Your task to perform on an android device: open app "Adobe Acrobat Reader" (install if not already installed) and go to login screen Image 0: 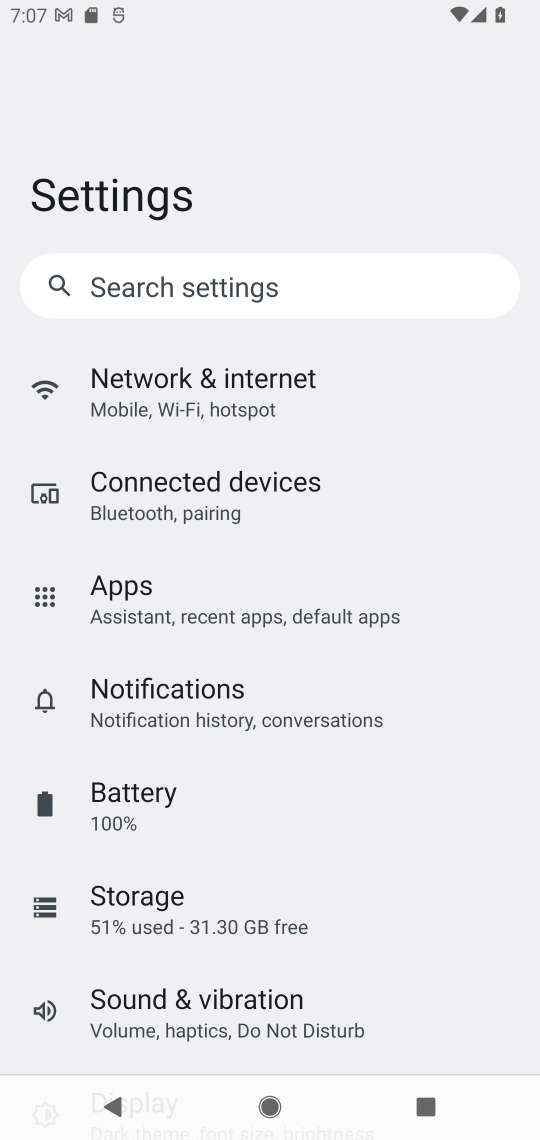
Step 0: press home button
Your task to perform on an android device: open app "Adobe Acrobat Reader" (install if not already installed) and go to login screen Image 1: 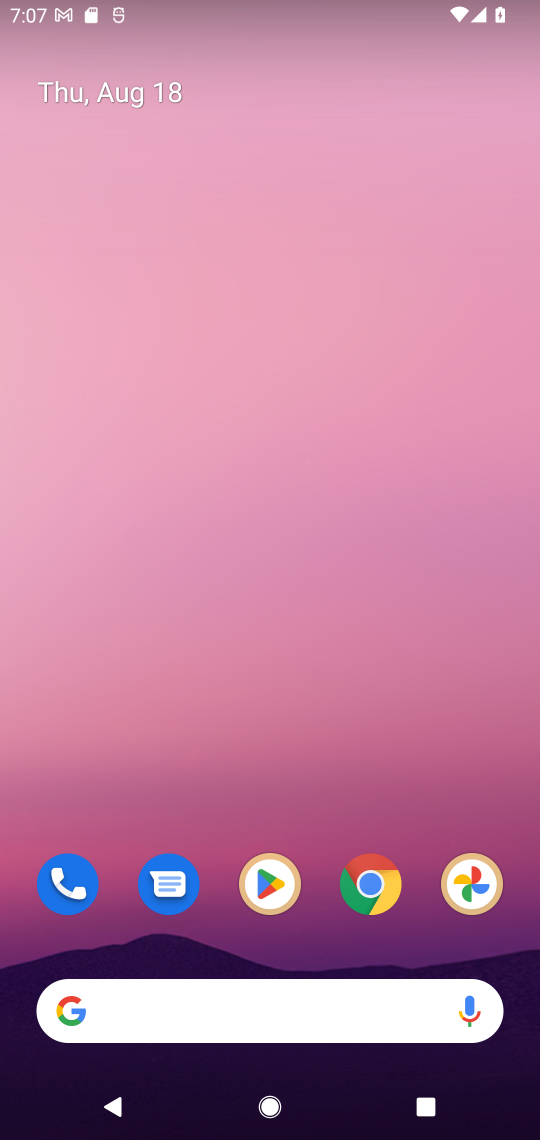
Step 1: drag from (328, 1006) to (366, 230)
Your task to perform on an android device: open app "Adobe Acrobat Reader" (install if not already installed) and go to login screen Image 2: 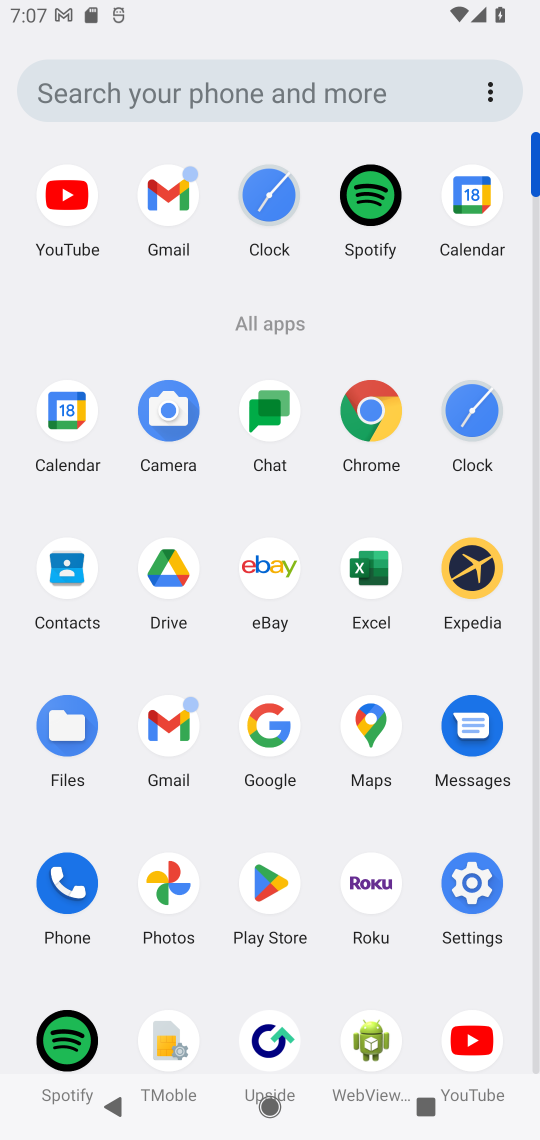
Step 2: click (275, 884)
Your task to perform on an android device: open app "Adobe Acrobat Reader" (install if not already installed) and go to login screen Image 3: 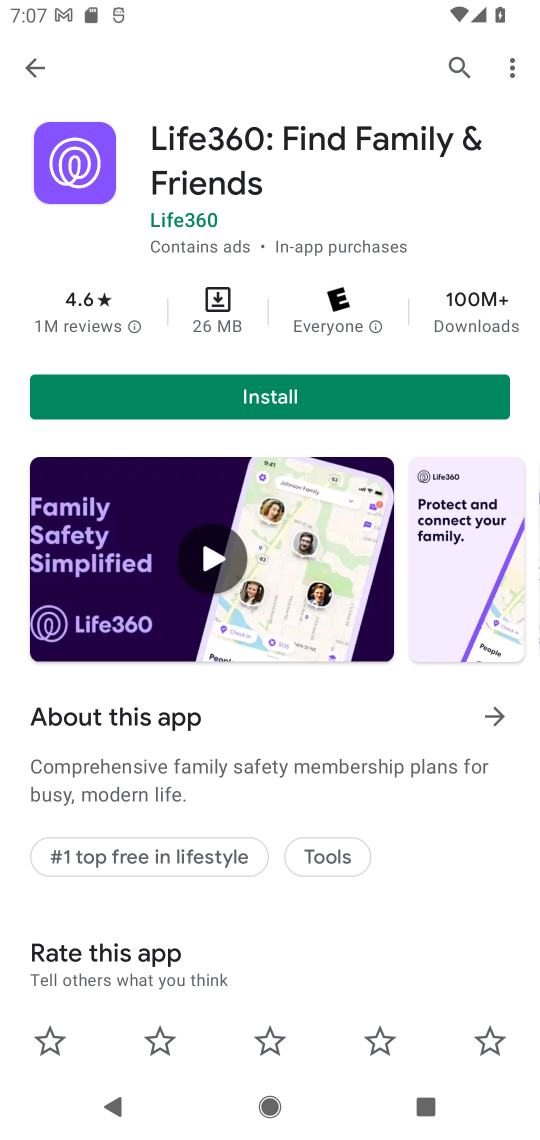
Step 3: press back button
Your task to perform on an android device: open app "Adobe Acrobat Reader" (install if not already installed) and go to login screen Image 4: 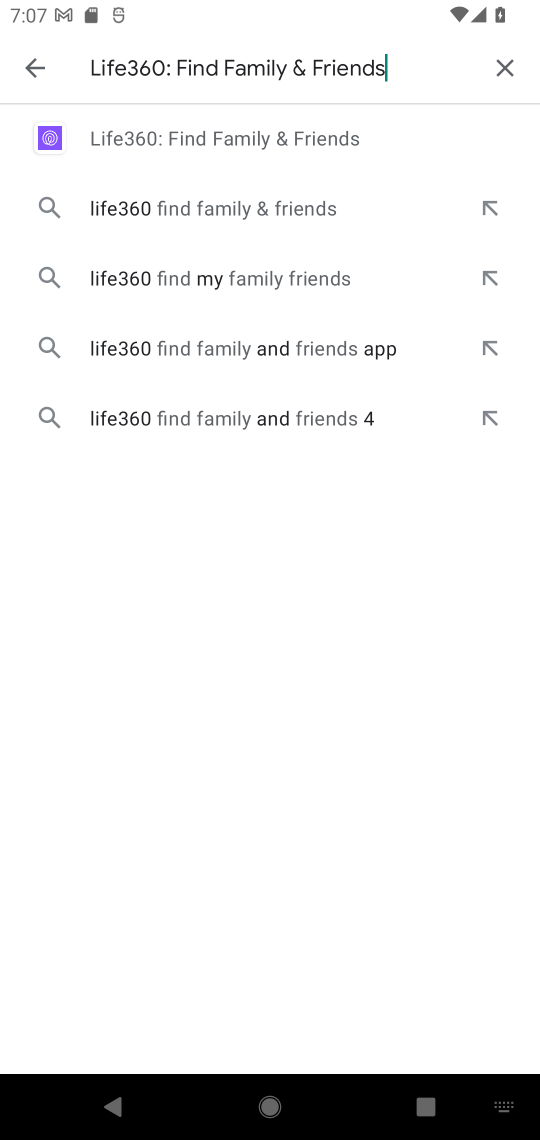
Step 4: press back button
Your task to perform on an android device: open app "Adobe Acrobat Reader" (install if not already installed) and go to login screen Image 5: 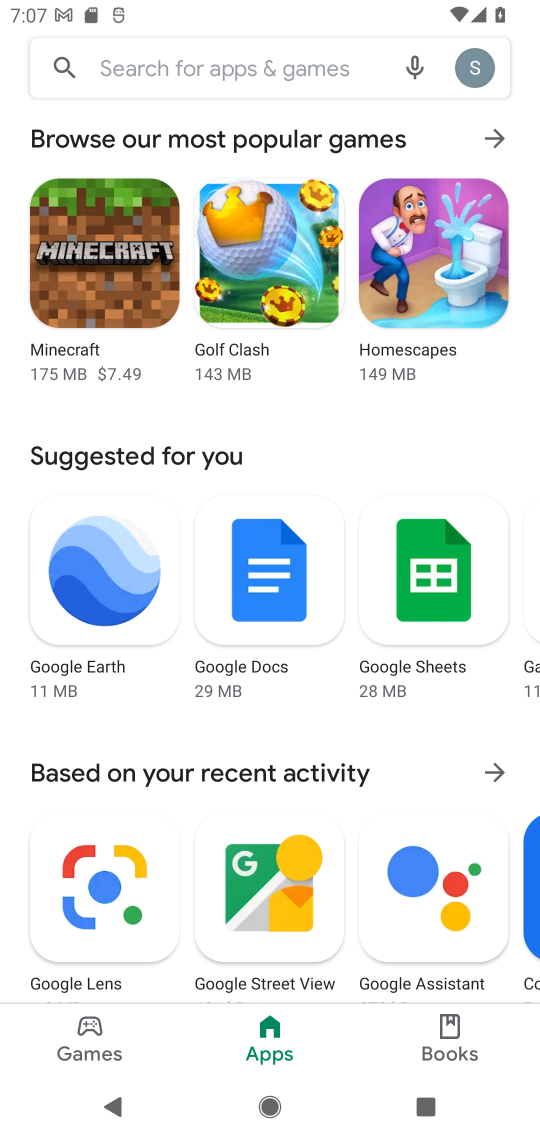
Step 5: click (308, 67)
Your task to perform on an android device: open app "Adobe Acrobat Reader" (install if not already installed) and go to login screen Image 6: 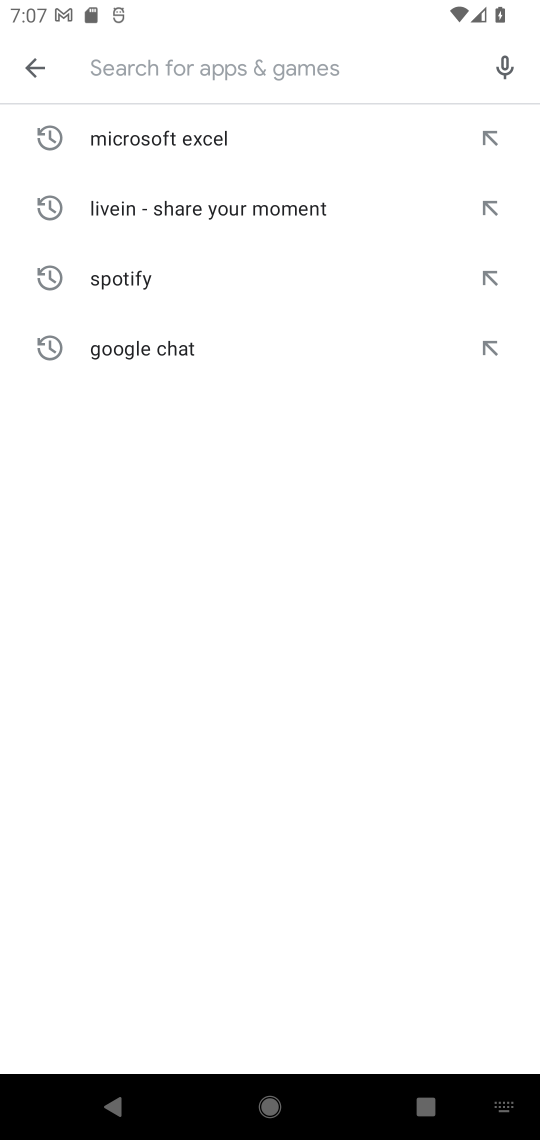
Step 6: type "Adobe AAcrobat Reader"
Your task to perform on an android device: open app "Adobe Acrobat Reader" (install if not already installed) and go to login screen Image 7: 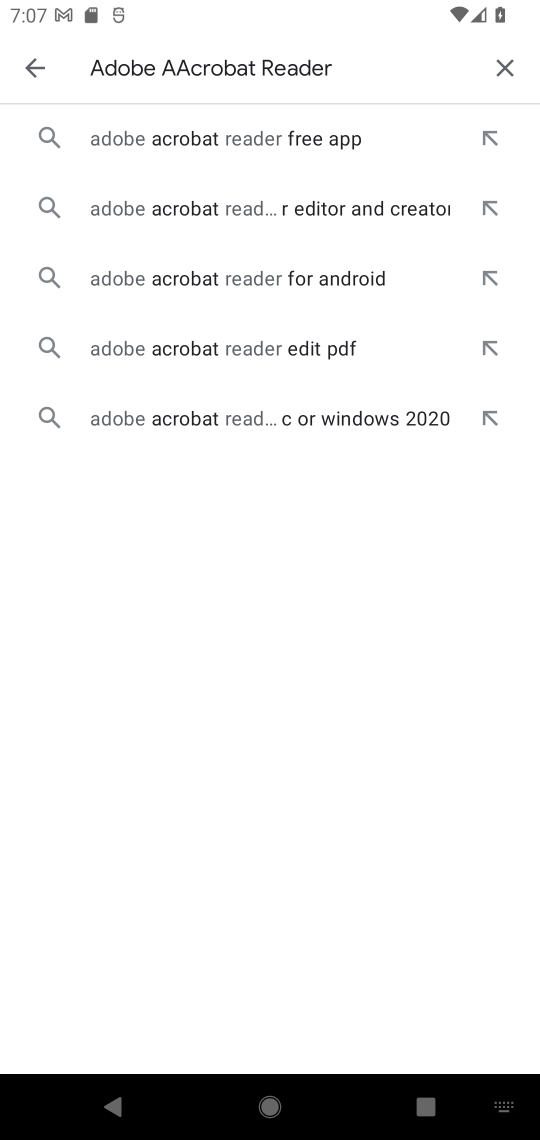
Step 7: click (216, 141)
Your task to perform on an android device: open app "Adobe Acrobat Reader" (install if not already installed) and go to login screen Image 8: 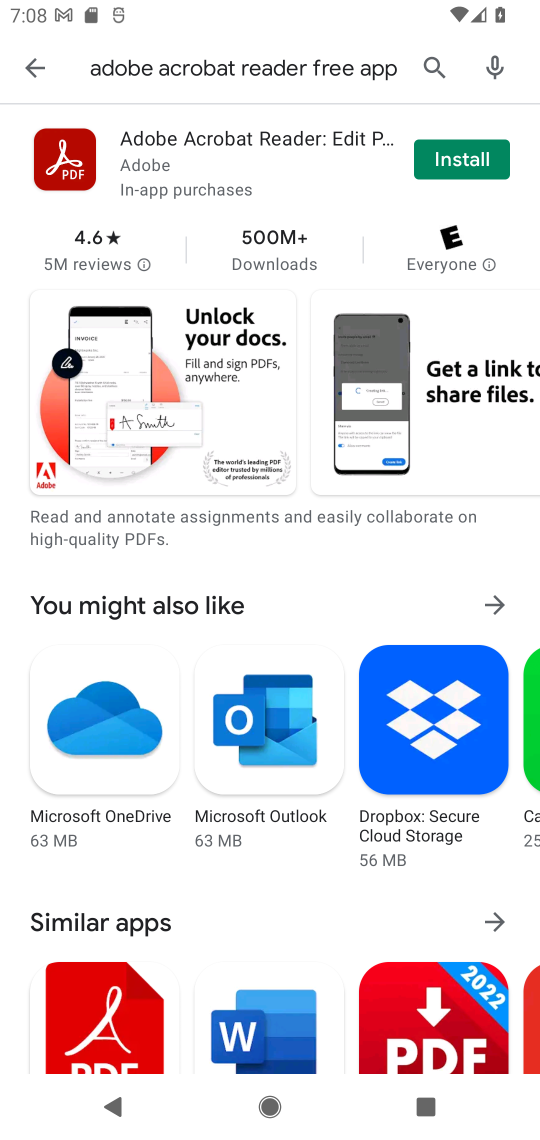
Step 8: click (463, 169)
Your task to perform on an android device: open app "Adobe Acrobat Reader" (install if not already installed) and go to login screen Image 9: 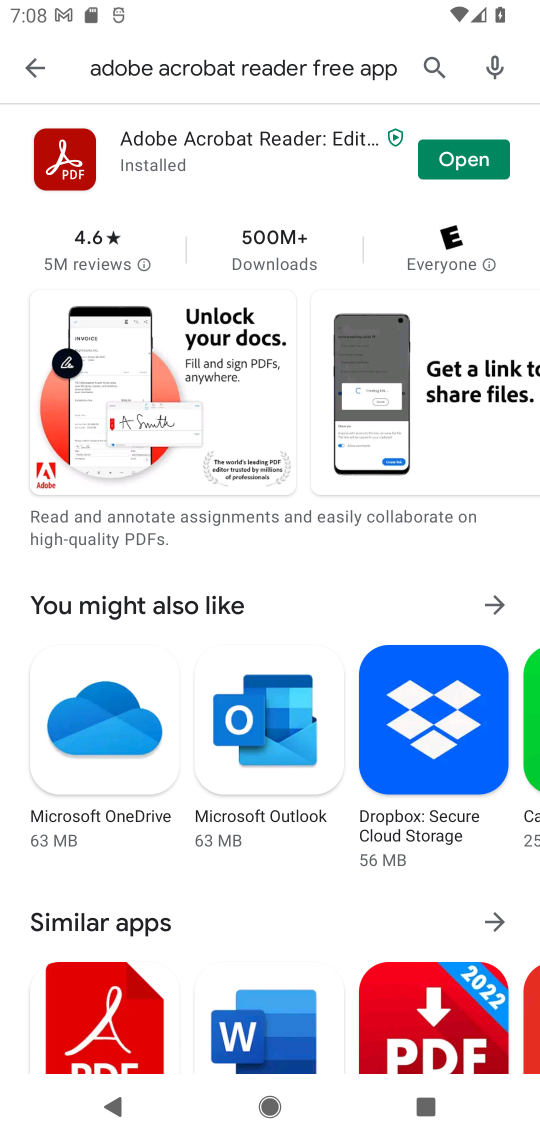
Step 9: click (462, 164)
Your task to perform on an android device: open app "Adobe Acrobat Reader" (install if not already installed) and go to login screen Image 10: 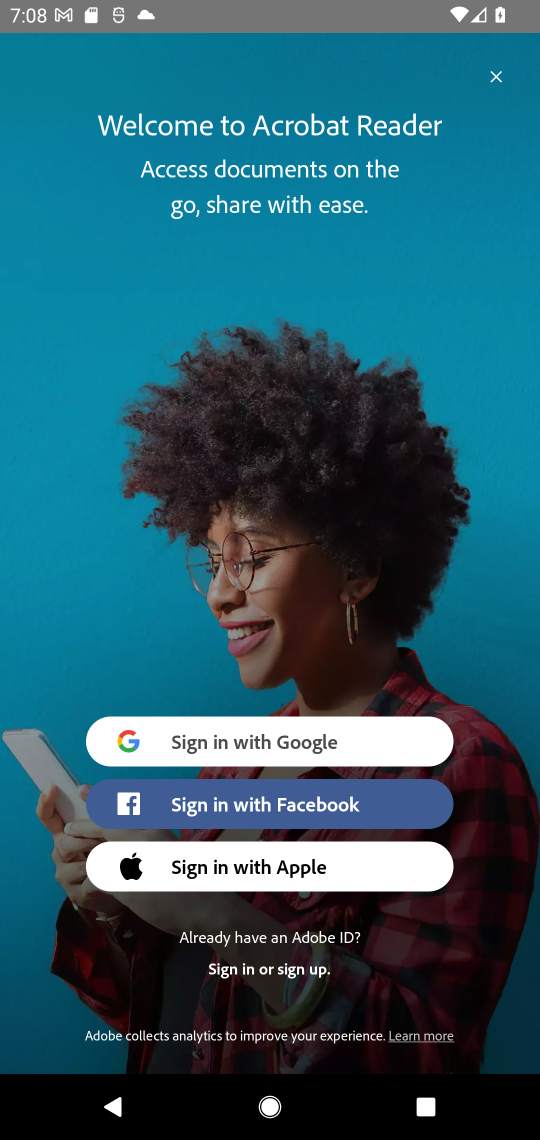
Step 10: click (253, 970)
Your task to perform on an android device: open app "Adobe Acrobat Reader" (install if not already installed) and go to login screen Image 11: 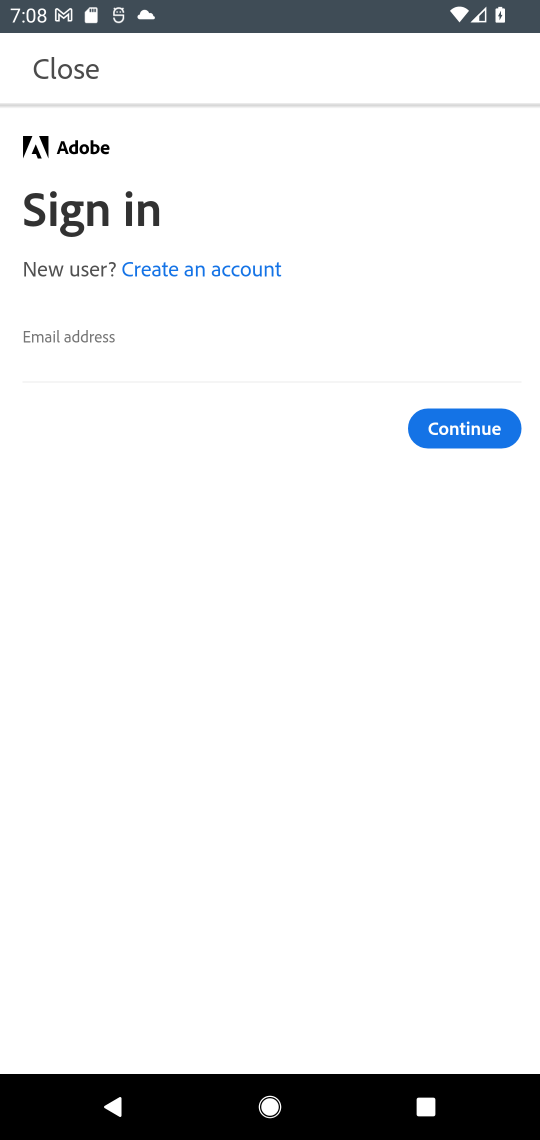
Step 11: task complete